Your task to perform on an android device: turn off location history Image 0: 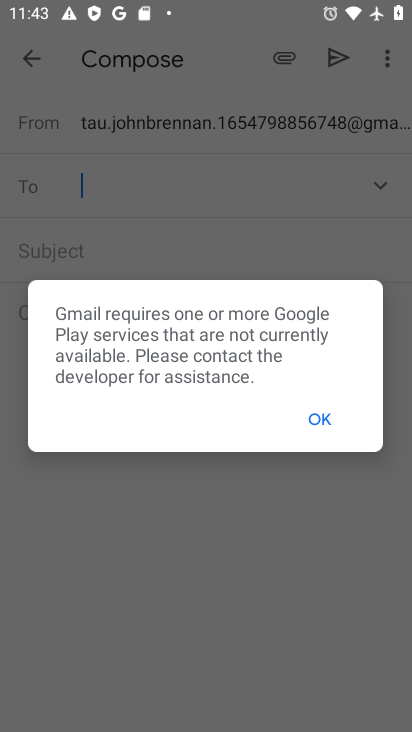
Step 0: press home button
Your task to perform on an android device: turn off location history Image 1: 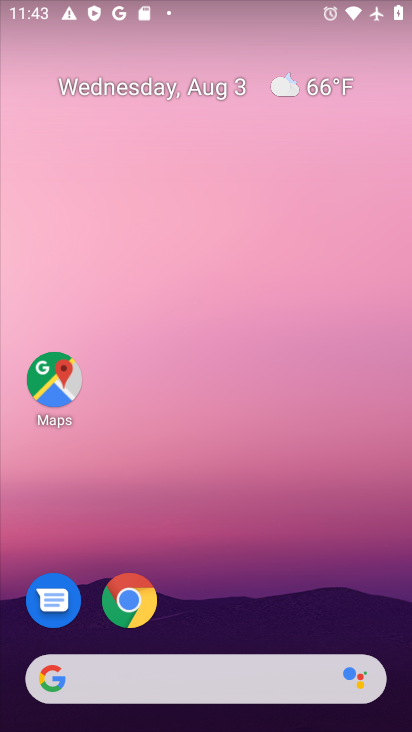
Step 1: drag from (217, 614) to (155, 87)
Your task to perform on an android device: turn off location history Image 2: 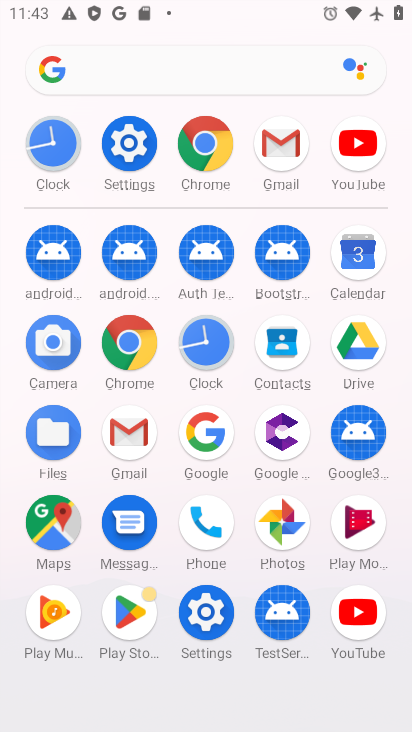
Step 2: click (199, 626)
Your task to perform on an android device: turn off location history Image 3: 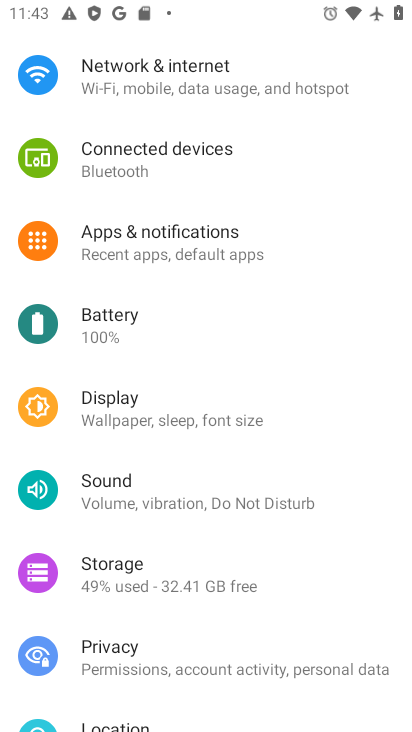
Step 3: click (81, 708)
Your task to perform on an android device: turn off location history Image 4: 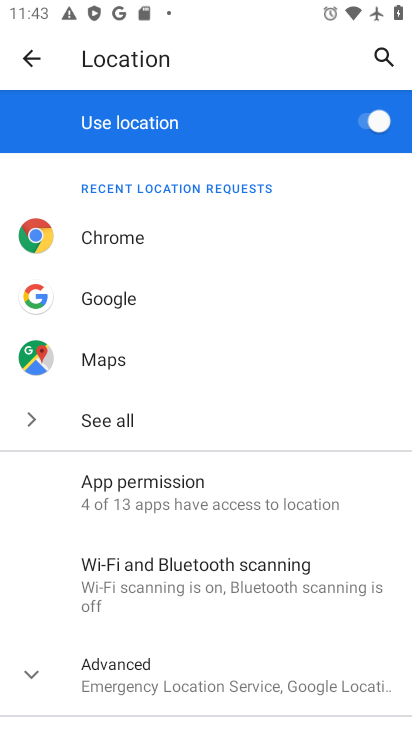
Step 4: click (161, 676)
Your task to perform on an android device: turn off location history Image 5: 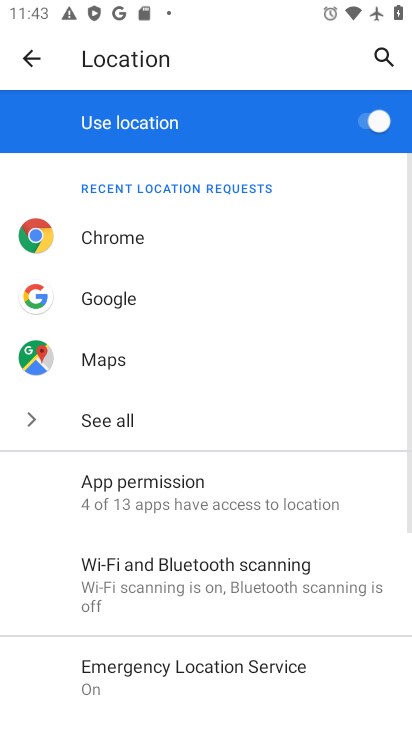
Step 5: drag from (161, 676) to (159, 159)
Your task to perform on an android device: turn off location history Image 6: 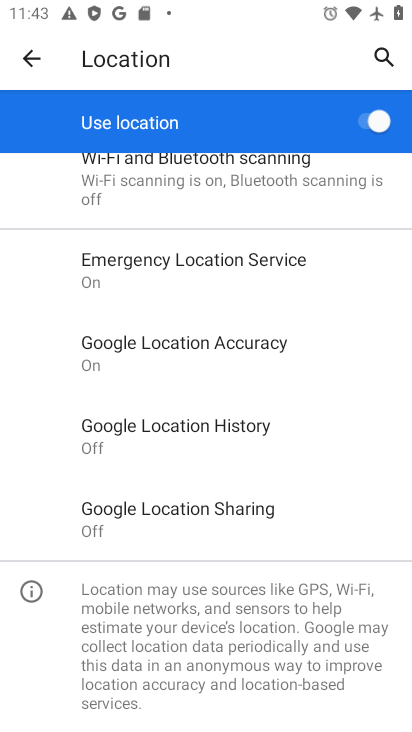
Step 6: click (169, 426)
Your task to perform on an android device: turn off location history Image 7: 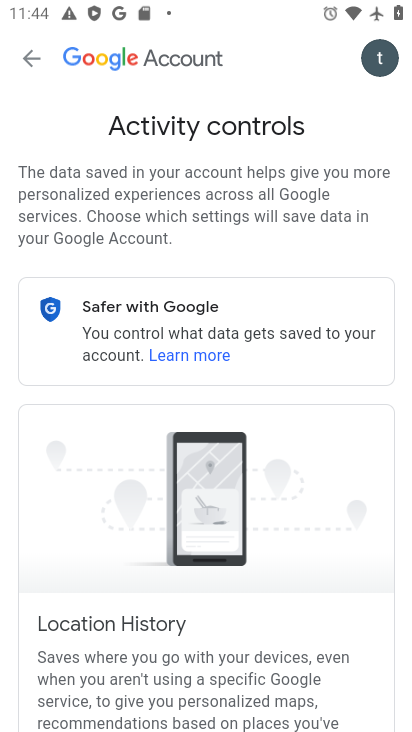
Step 7: task complete